Your task to perform on an android device: Open Android settings Image 0: 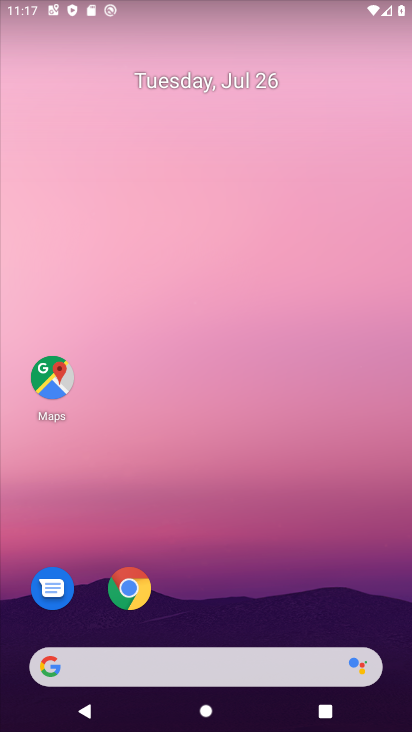
Step 0: drag from (285, 618) to (272, 211)
Your task to perform on an android device: Open Android settings Image 1: 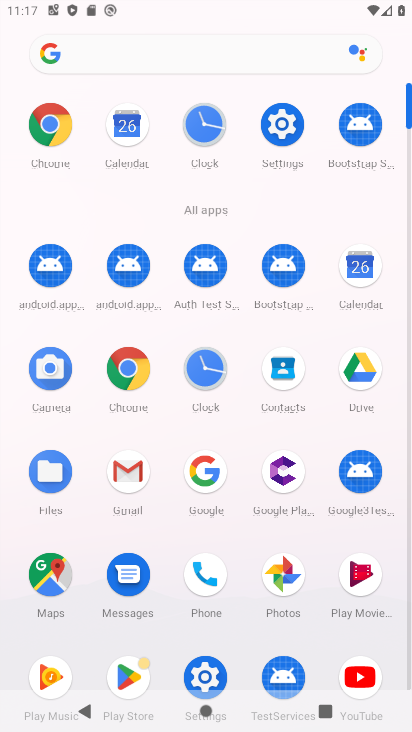
Step 1: click (283, 132)
Your task to perform on an android device: Open Android settings Image 2: 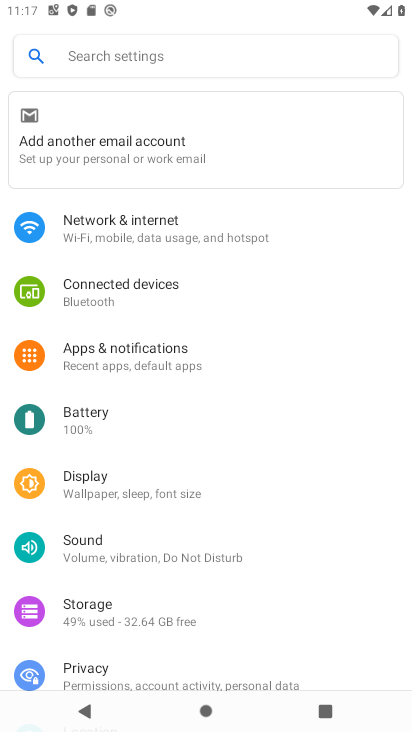
Step 2: task complete